Your task to perform on an android device: Open wifi settings Image 0: 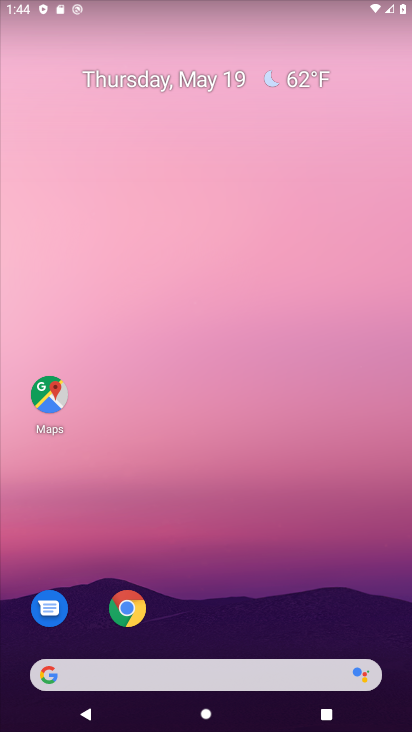
Step 0: drag from (274, 619) to (210, 7)
Your task to perform on an android device: Open wifi settings Image 1: 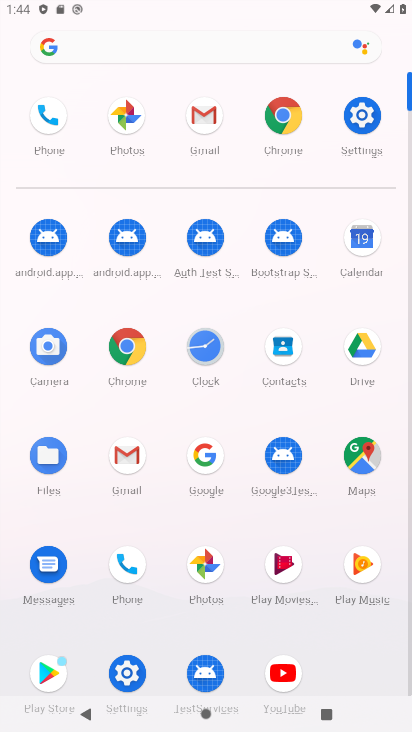
Step 1: click (356, 145)
Your task to perform on an android device: Open wifi settings Image 2: 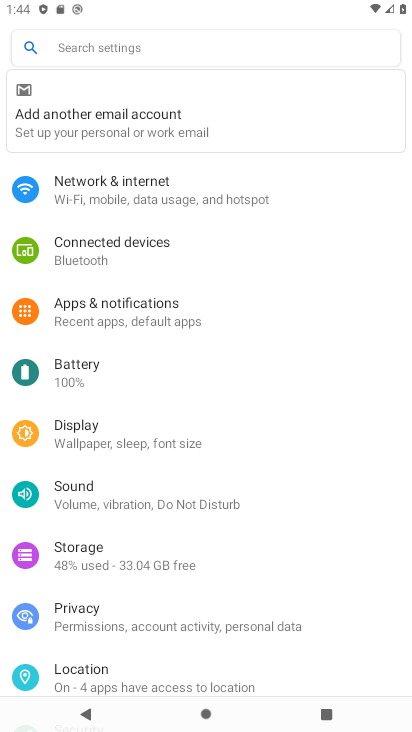
Step 2: click (104, 202)
Your task to perform on an android device: Open wifi settings Image 3: 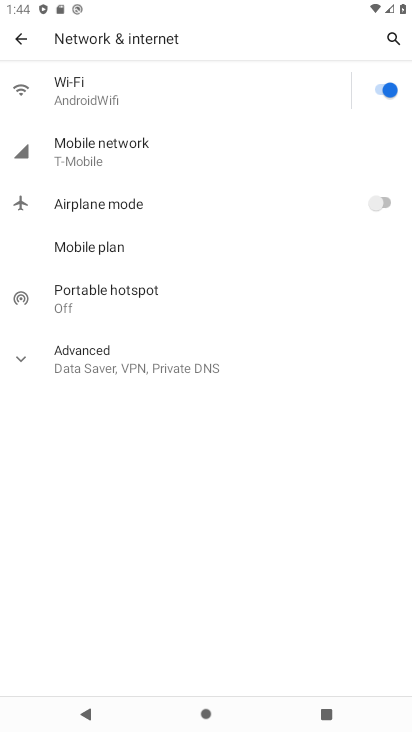
Step 3: click (126, 104)
Your task to perform on an android device: Open wifi settings Image 4: 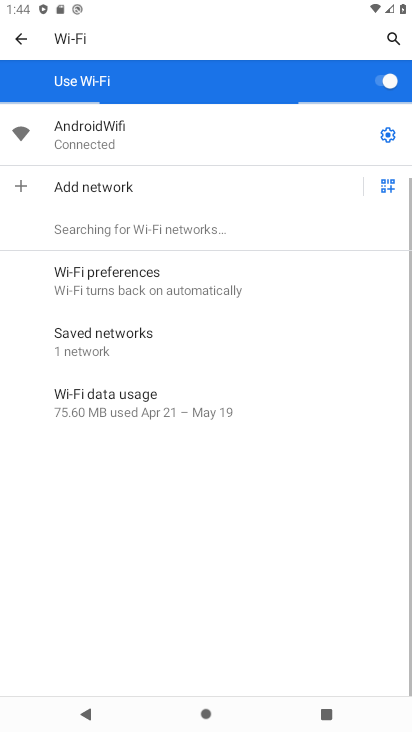
Step 4: task complete